Your task to perform on an android device: Open Chrome and go to settings Image 0: 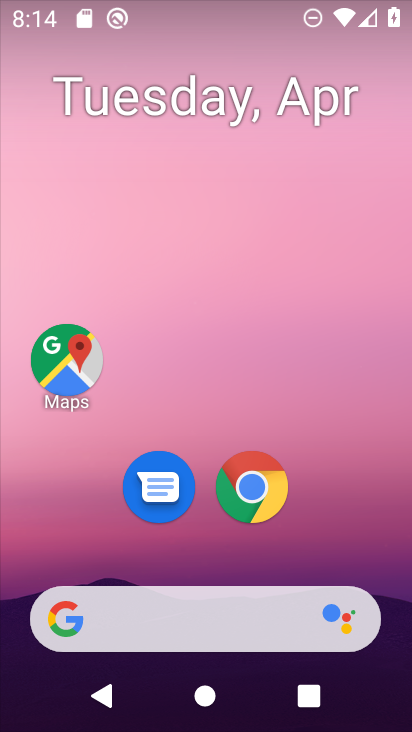
Step 0: drag from (198, 581) to (241, 193)
Your task to perform on an android device: Open Chrome and go to settings Image 1: 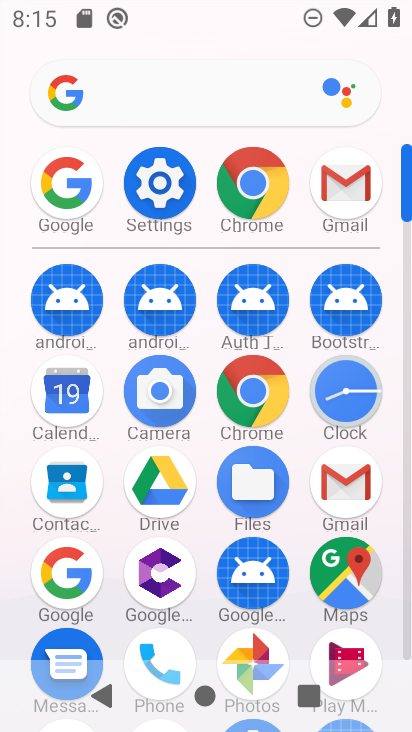
Step 1: click (255, 402)
Your task to perform on an android device: Open Chrome and go to settings Image 2: 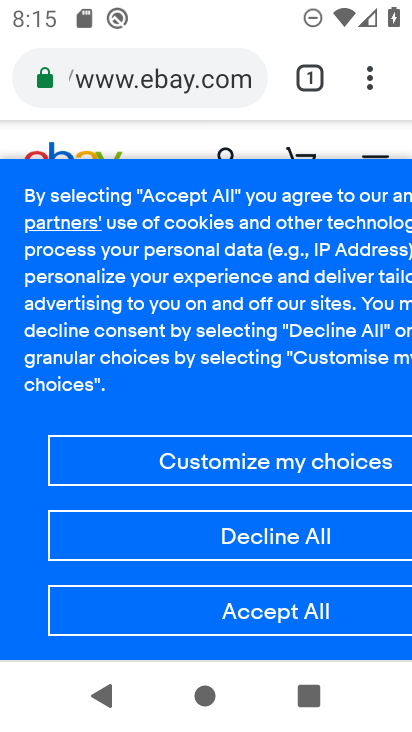
Step 2: click (323, 75)
Your task to perform on an android device: Open Chrome and go to settings Image 3: 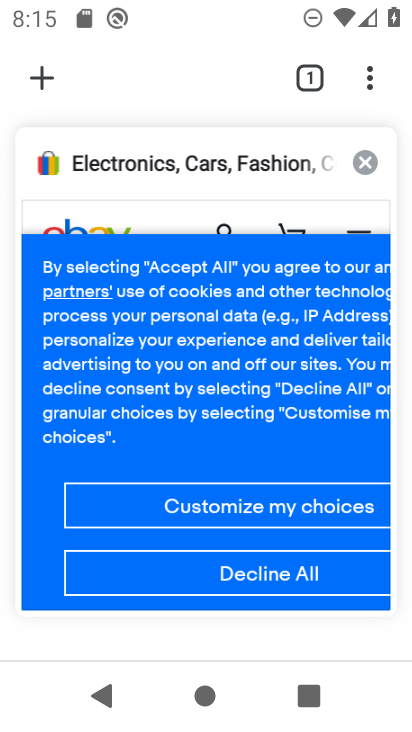
Step 3: click (360, 163)
Your task to perform on an android device: Open Chrome and go to settings Image 4: 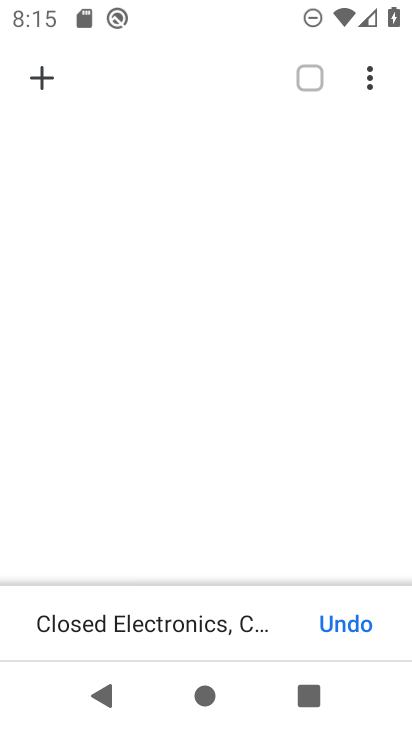
Step 4: click (31, 74)
Your task to perform on an android device: Open Chrome and go to settings Image 5: 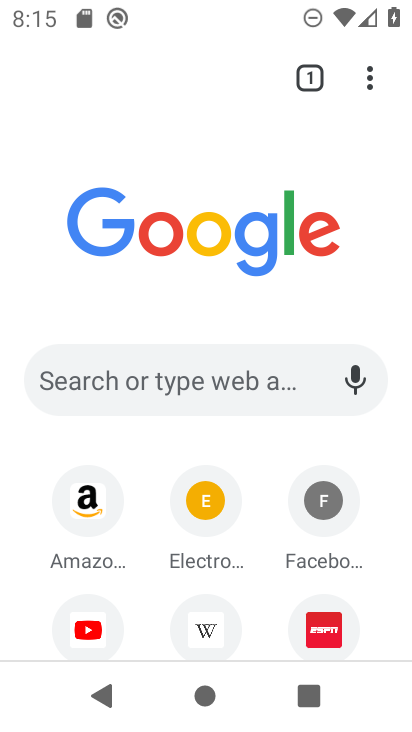
Step 5: click (367, 76)
Your task to perform on an android device: Open Chrome and go to settings Image 6: 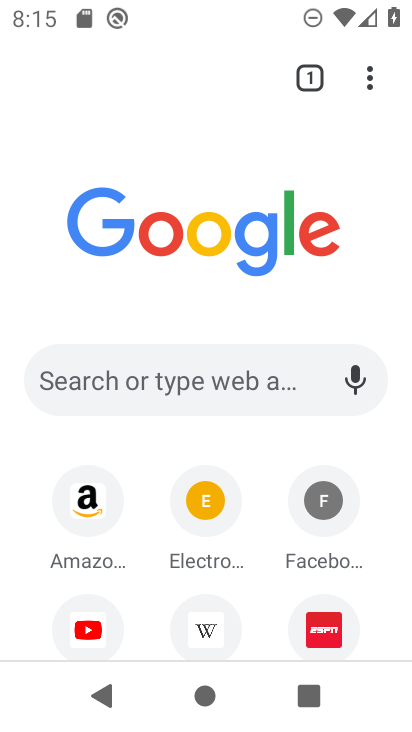
Step 6: click (365, 77)
Your task to perform on an android device: Open Chrome and go to settings Image 7: 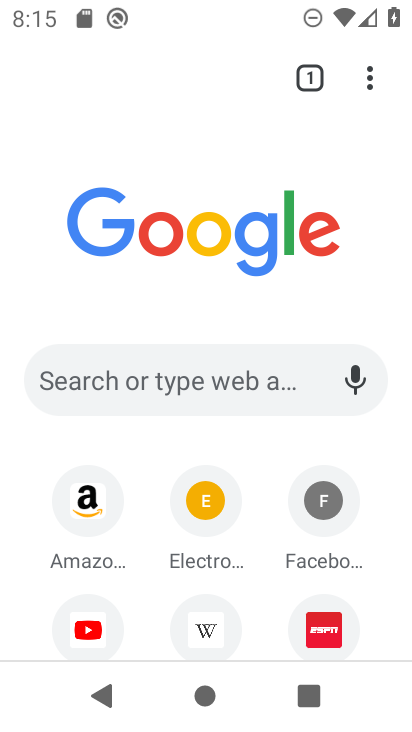
Step 7: click (380, 80)
Your task to perform on an android device: Open Chrome and go to settings Image 8: 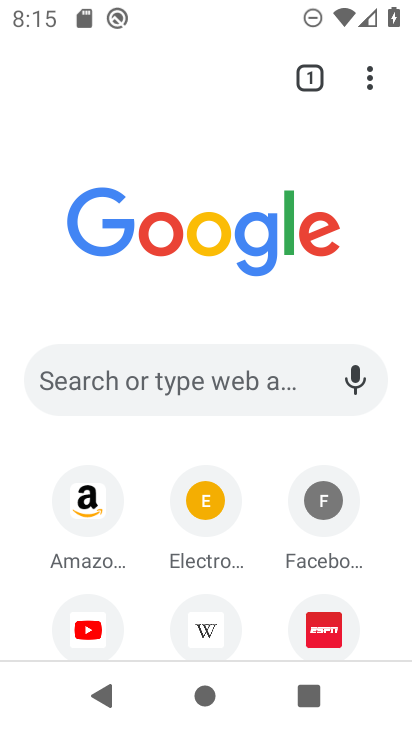
Step 8: click (374, 72)
Your task to perform on an android device: Open Chrome and go to settings Image 9: 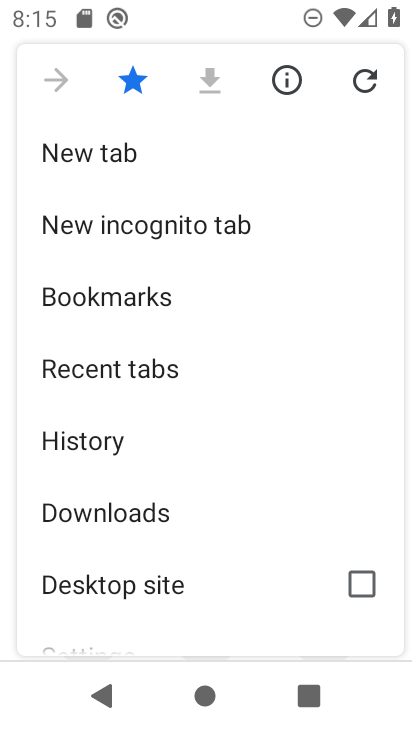
Step 9: drag from (198, 590) to (196, 275)
Your task to perform on an android device: Open Chrome and go to settings Image 10: 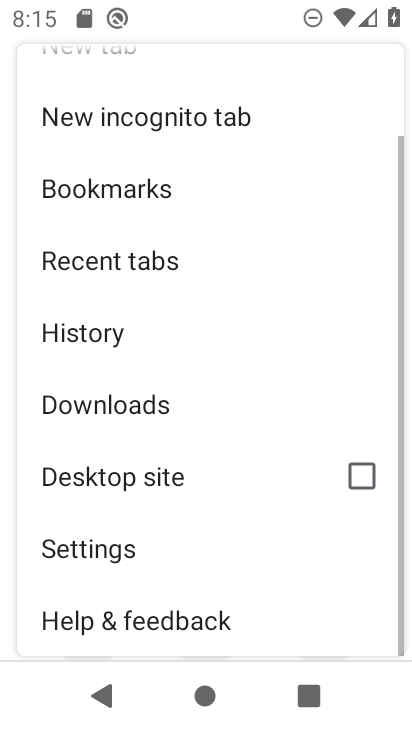
Step 10: click (110, 557)
Your task to perform on an android device: Open Chrome and go to settings Image 11: 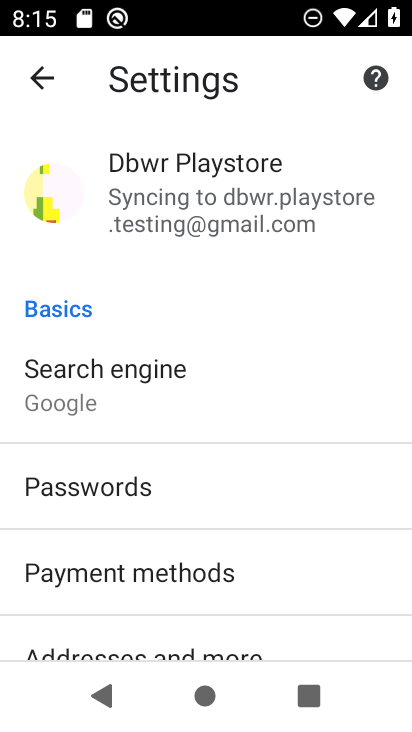
Step 11: task complete